Your task to perform on an android device: turn on showing notifications on the lock screen Image 0: 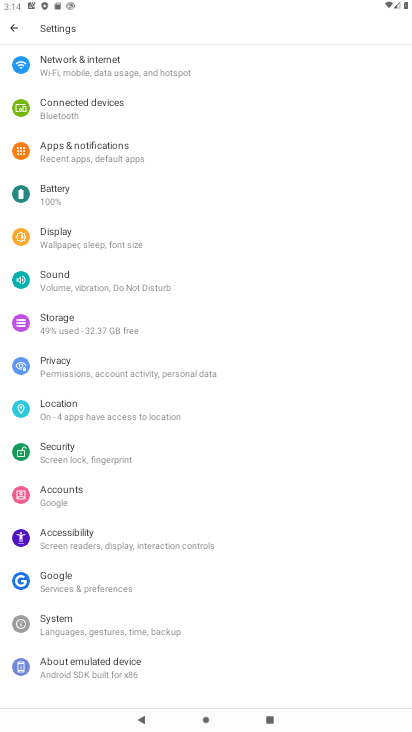
Step 0: click (97, 159)
Your task to perform on an android device: turn on showing notifications on the lock screen Image 1: 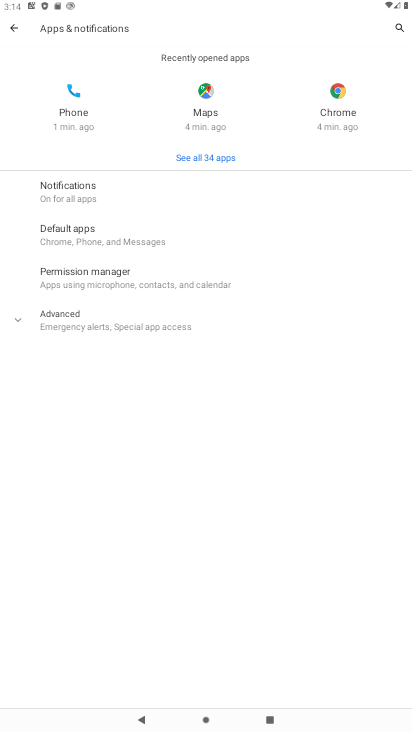
Step 1: click (128, 196)
Your task to perform on an android device: turn on showing notifications on the lock screen Image 2: 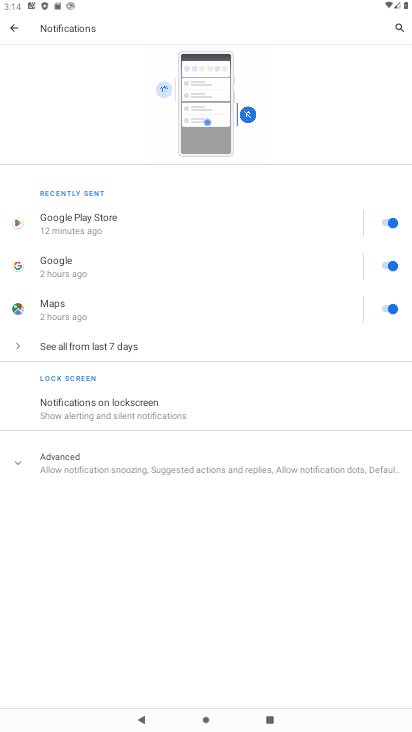
Step 2: click (142, 402)
Your task to perform on an android device: turn on showing notifications on the lock screen Image 3: 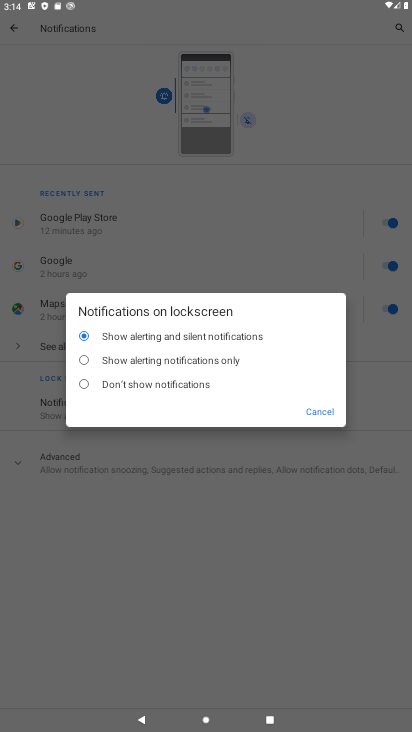
Step 3: click (190, 355)
Your task to perform on an android device: turn on showing notifications on the lock screen Image 4: 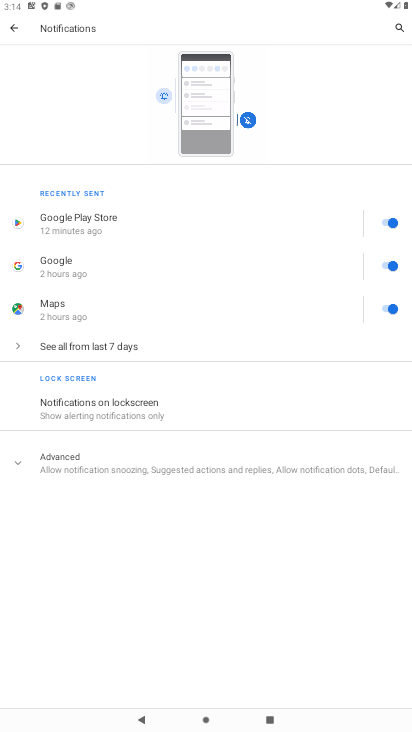
Step 4: task complete